Your task to perform on an android device: Is it going to rain today? Image 0: 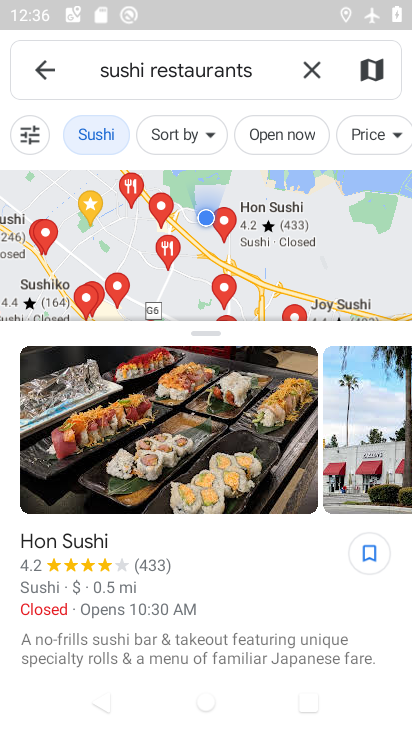
Step 0: press home button
Your task to perform on an android device: Is it going to rain today? Image 1: 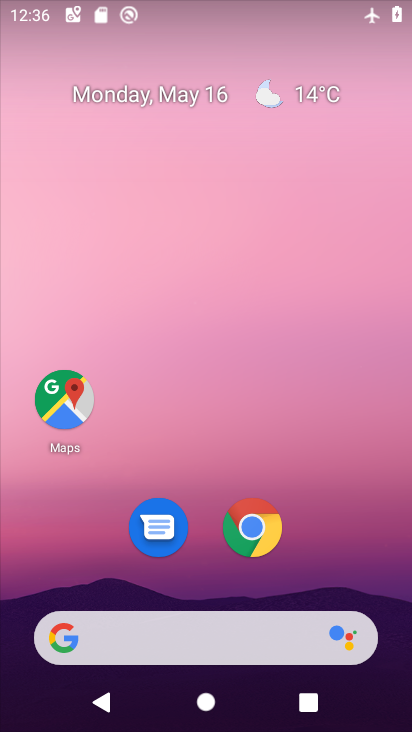
Step 1: click (317, 82)
Your task to perform on an android device: Is it going to rain today? Image 2: 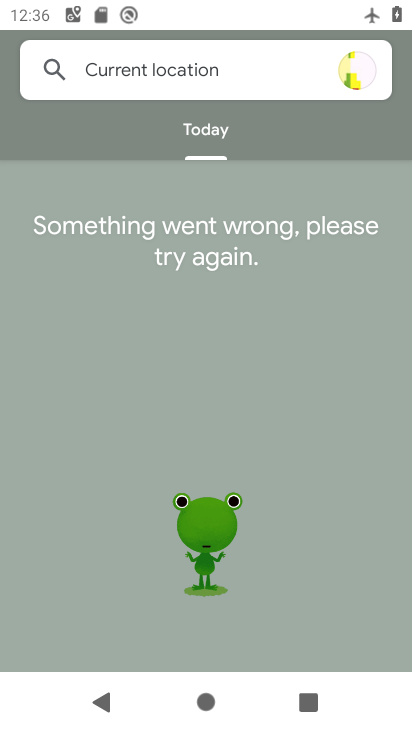
Step 2: task complete